Your task to perform on an android device: Go to Google maps Image 0: 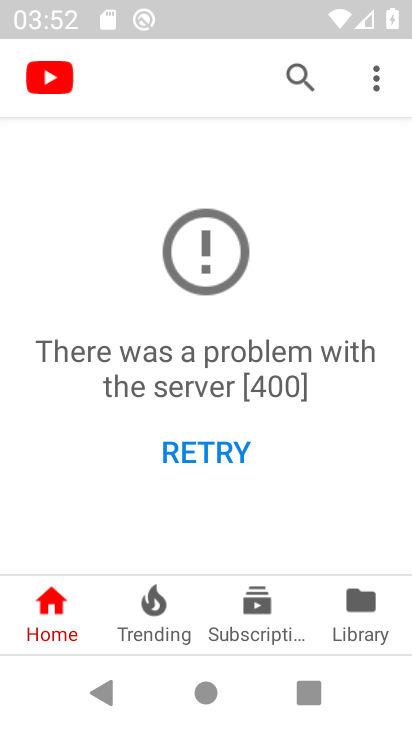
Step 0: press home button
Your task to perform on an android device: Go to Google maps Image 1: 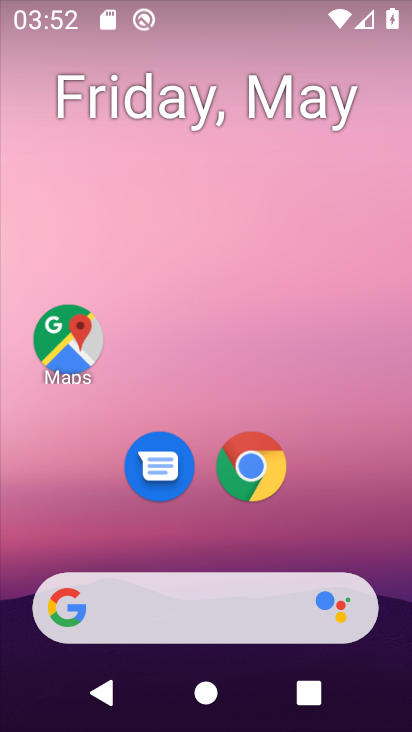
Step 1: click (55, 339)
Your task to perform on an android device: Go to Google maps Image 2: 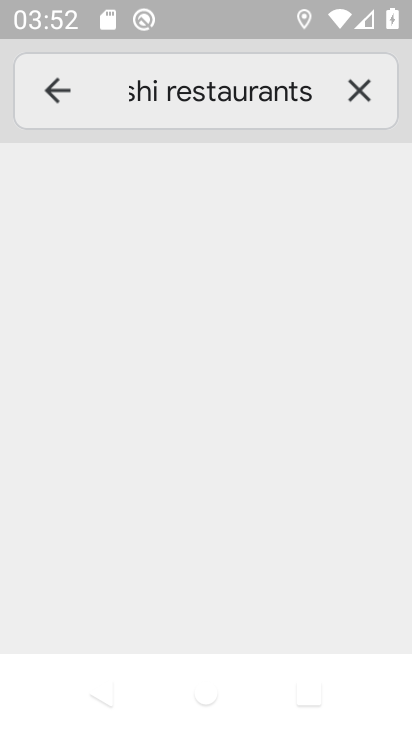
Step 2: click (347, 85)
Your task to perform on an android device: Go to Google maps Image 3: 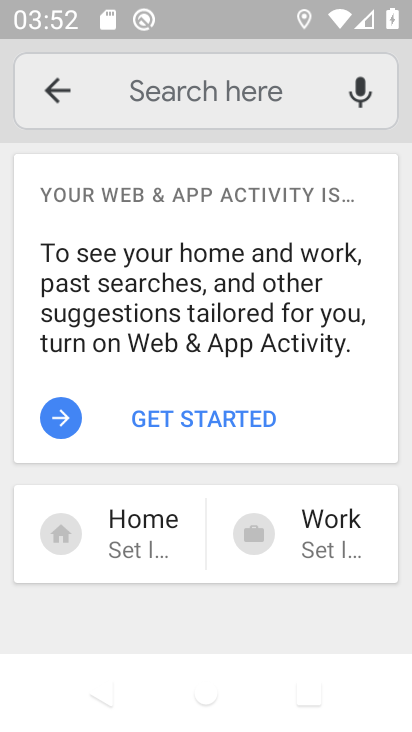
Step 3: click (196, 406)
Your task to perform on an android device: Go to Google maps Image 4: 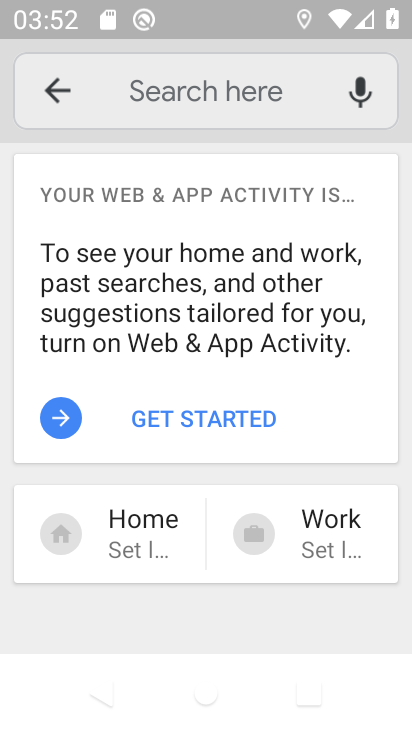
Step 4: task complete